Your task to perform on an android device: open a bookmark in the chrome app Image 0: 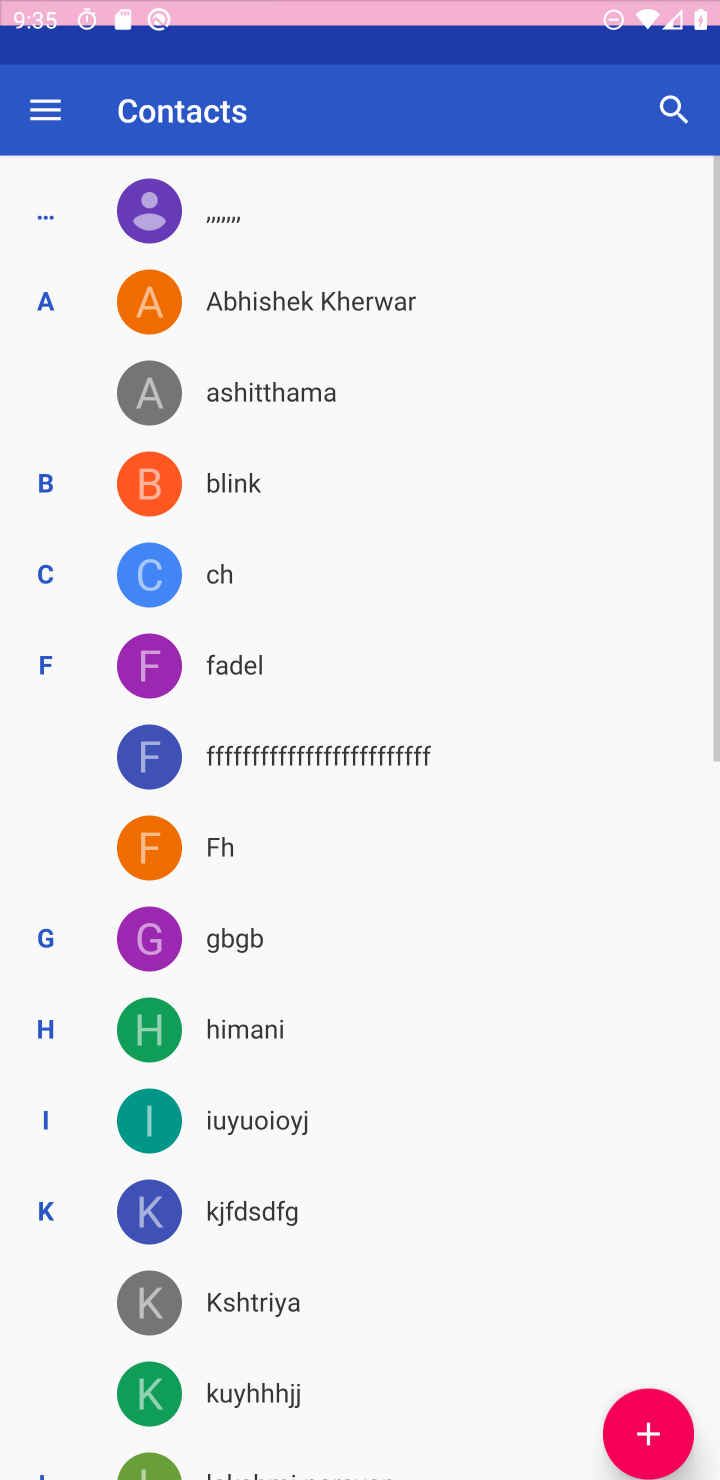
Step 0: press home button
Your task to perform on an android device: open a bookmark in the chrome app Image 1: 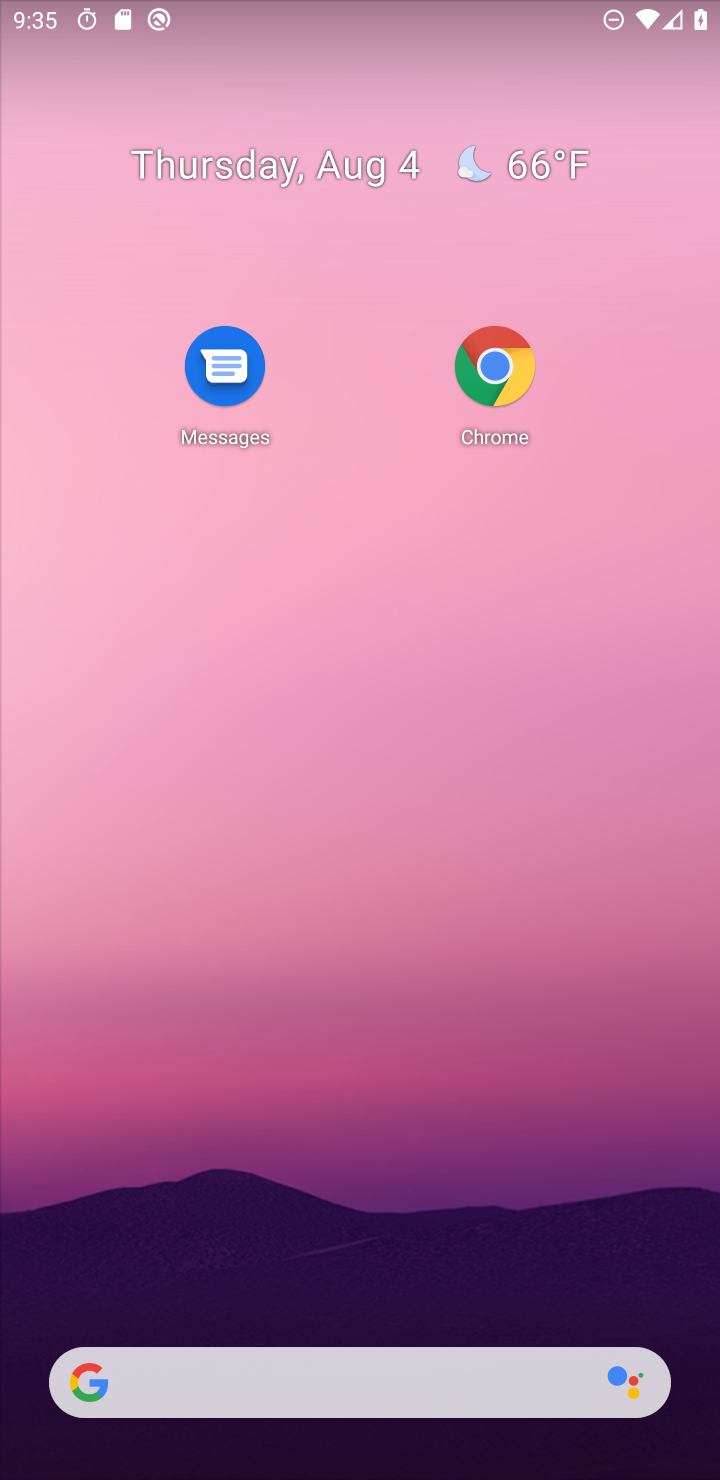
Step 1: drag from (343, 1256) to (459, 232)
Your task to perform on an android device: open a bookmark in the chrome app Image 2: 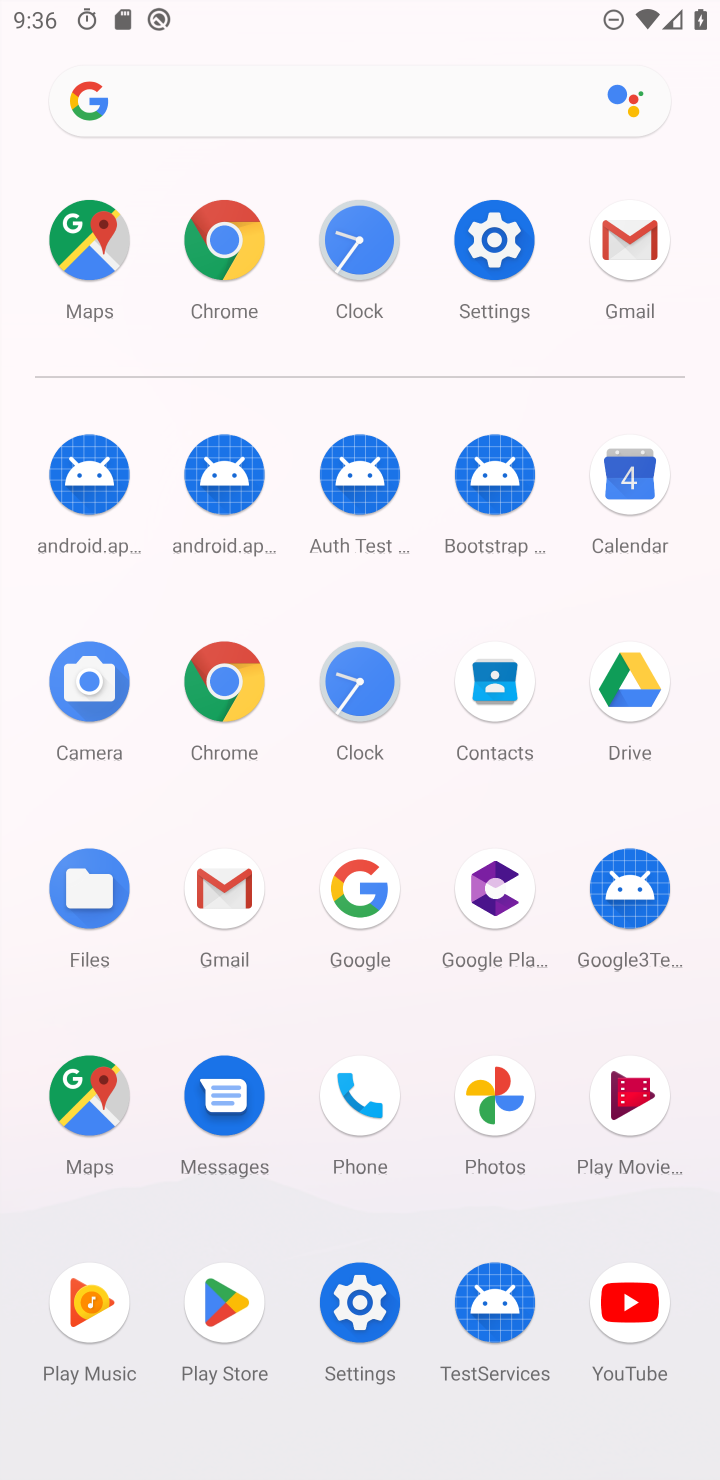
Step 2: click (217, 250)
Your task to perform on an android device: open a bookmark in the chrome app Image 3: 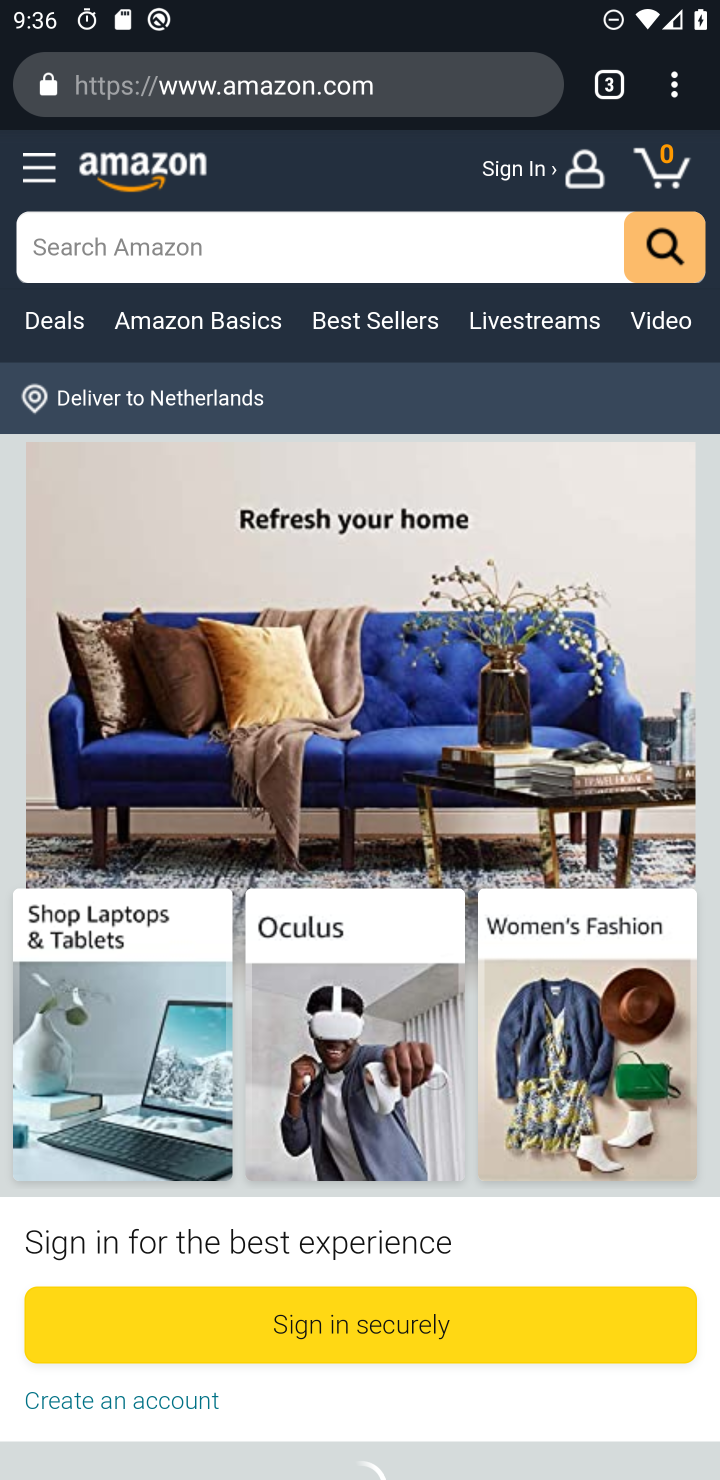
Step 3: click (672, 97)
Your task to perform on an android device: open a bookmark in the chrome app Image 4: 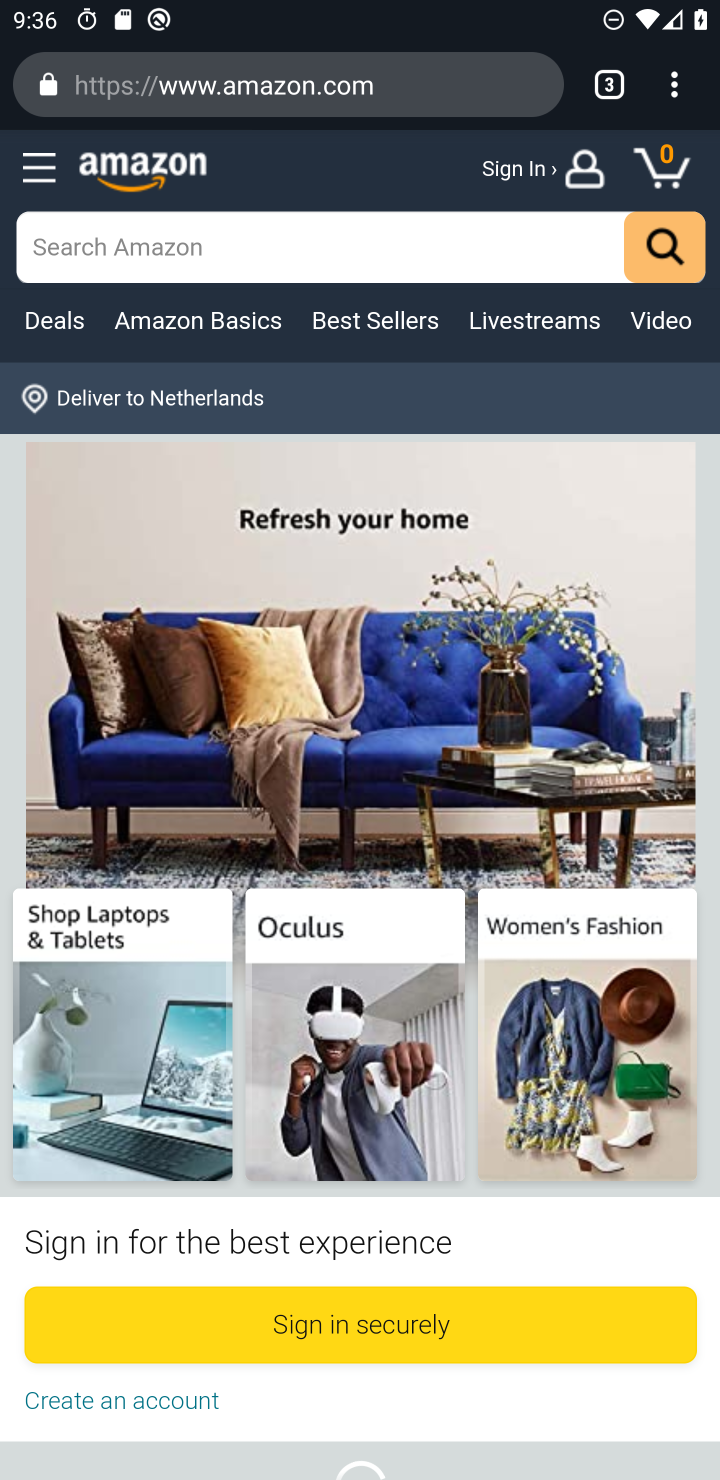
Step 4: click (676, 82)
Your task to perform on an android device: open a bookmark in the chrome app Image 5: 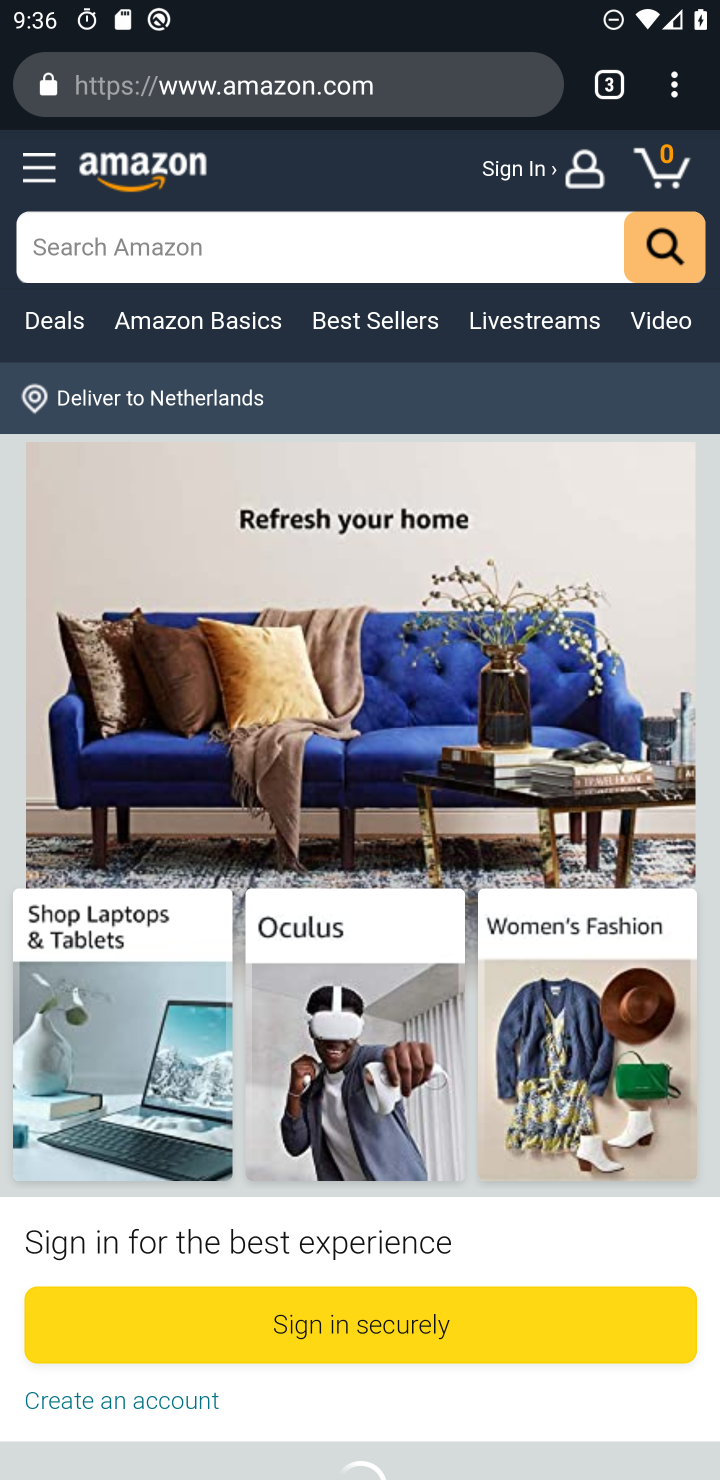
Step 5: click (670, 103)
Your task to perform on an android device: open a bookmark in the chrome app Image 6: 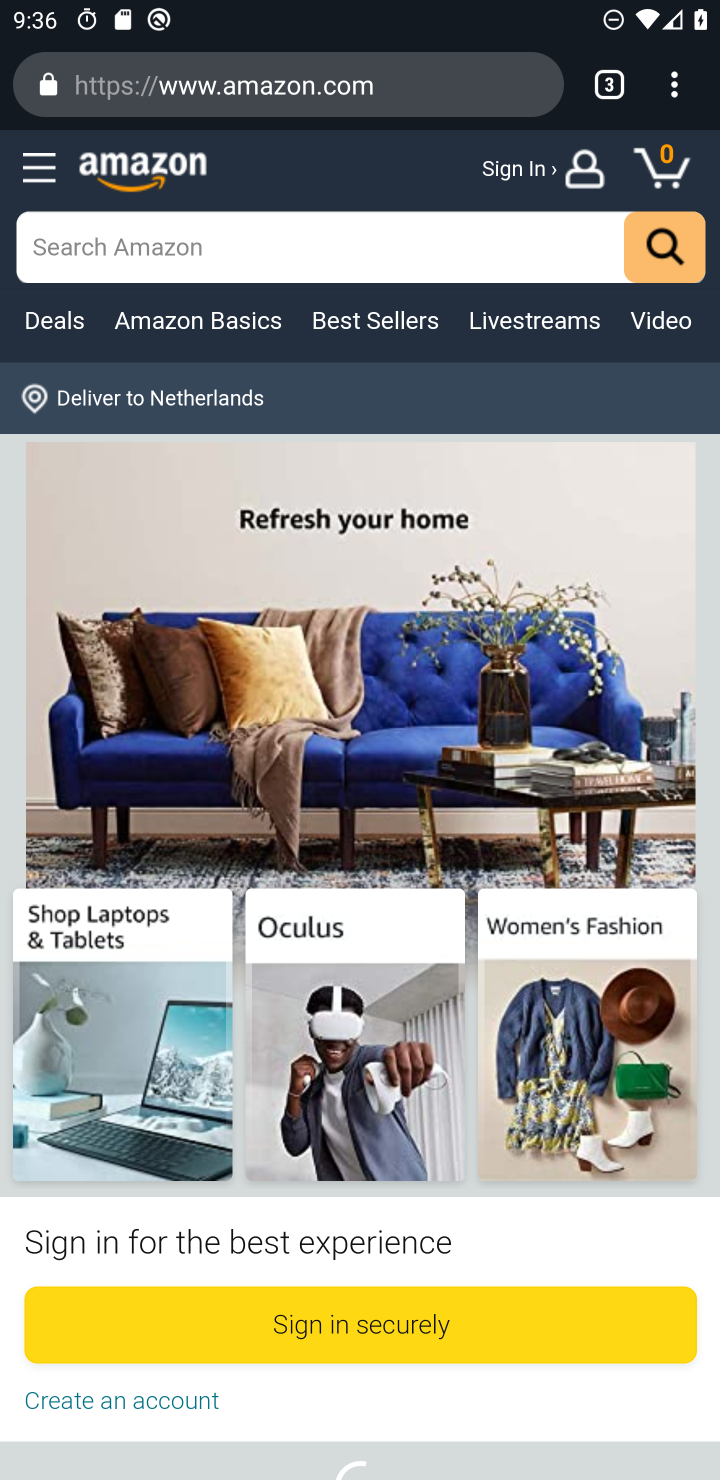
Step 6: click (675, 93)
Your task to perform on an android device: open a bookmark in the chrome app Image 7: 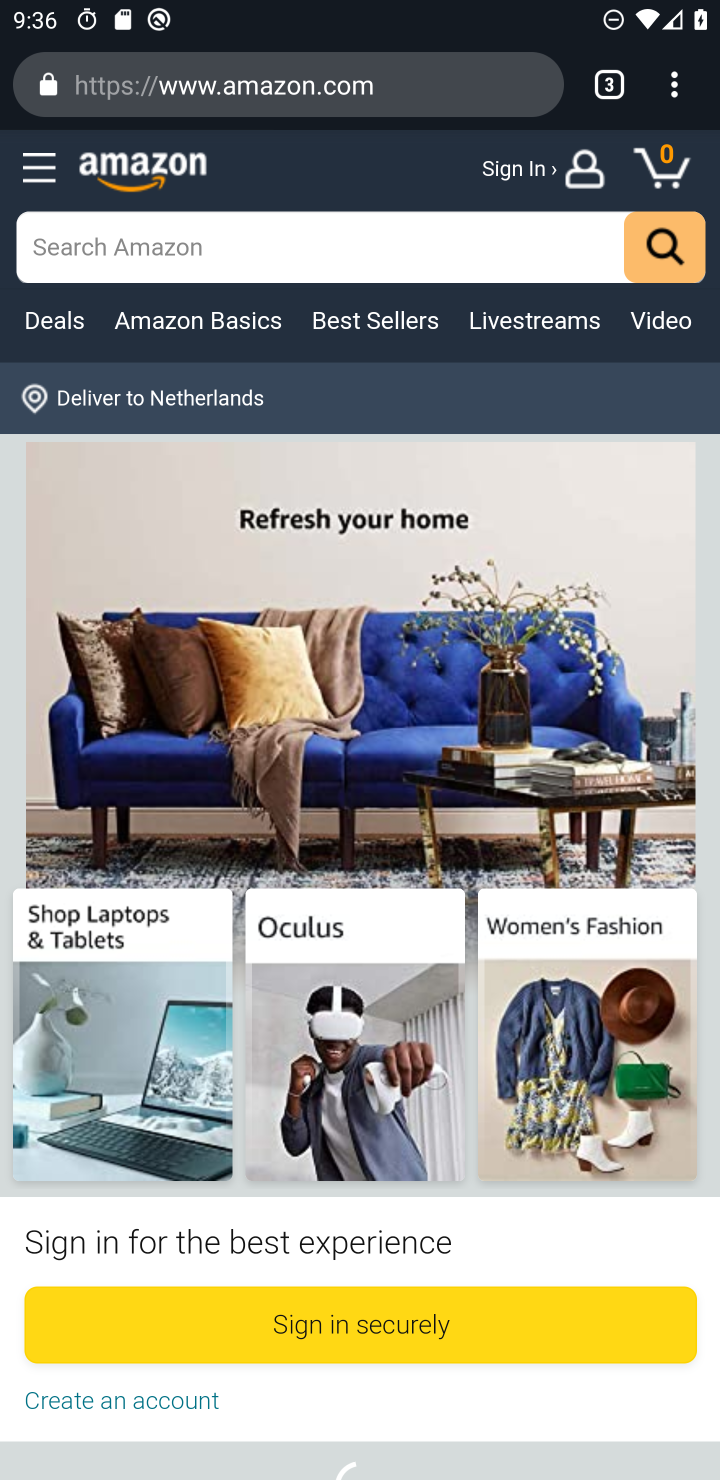
Step 7: click (675, 93)
Your task to perform on an android device: open a bookmark in the chrome app Image 8: 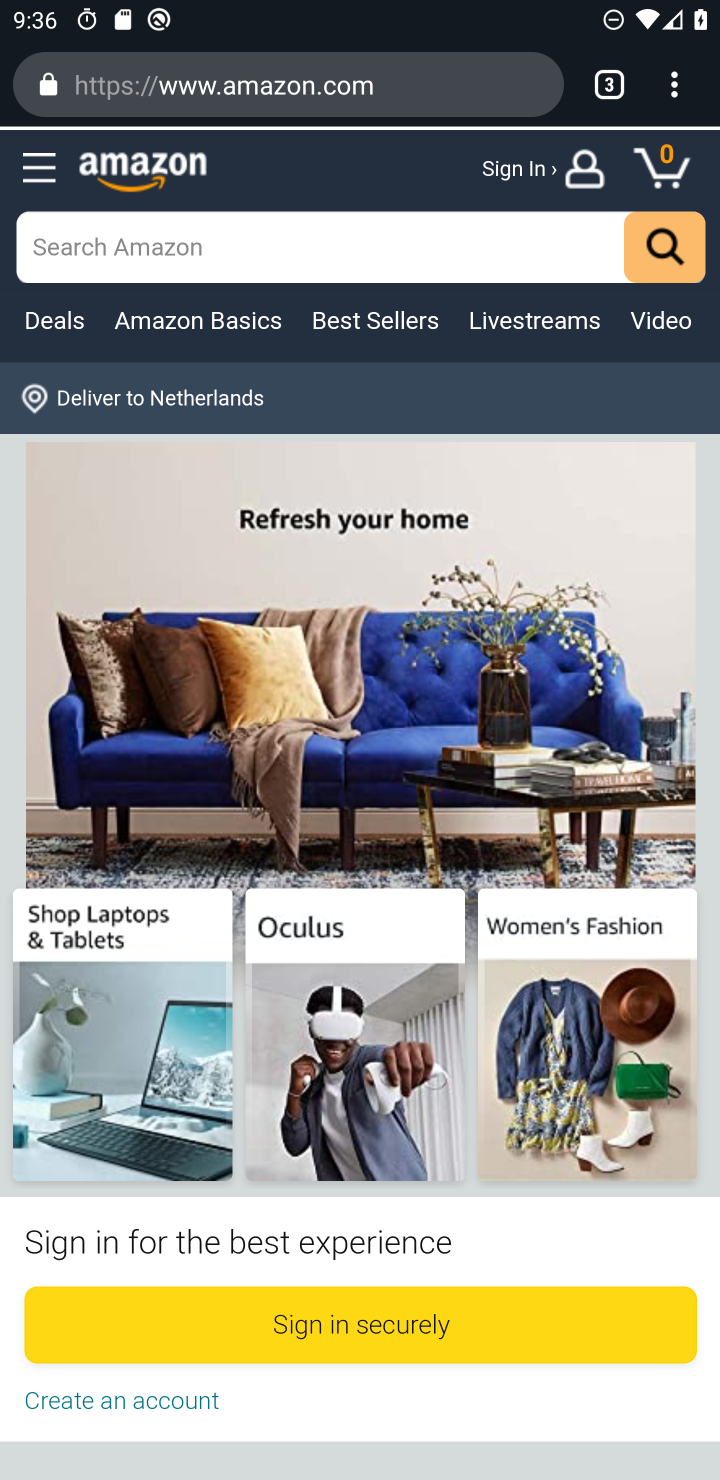
Step 8: click (675, 93)
Your task to perform on an android device: open a bookmark in the chrome app Image 9: 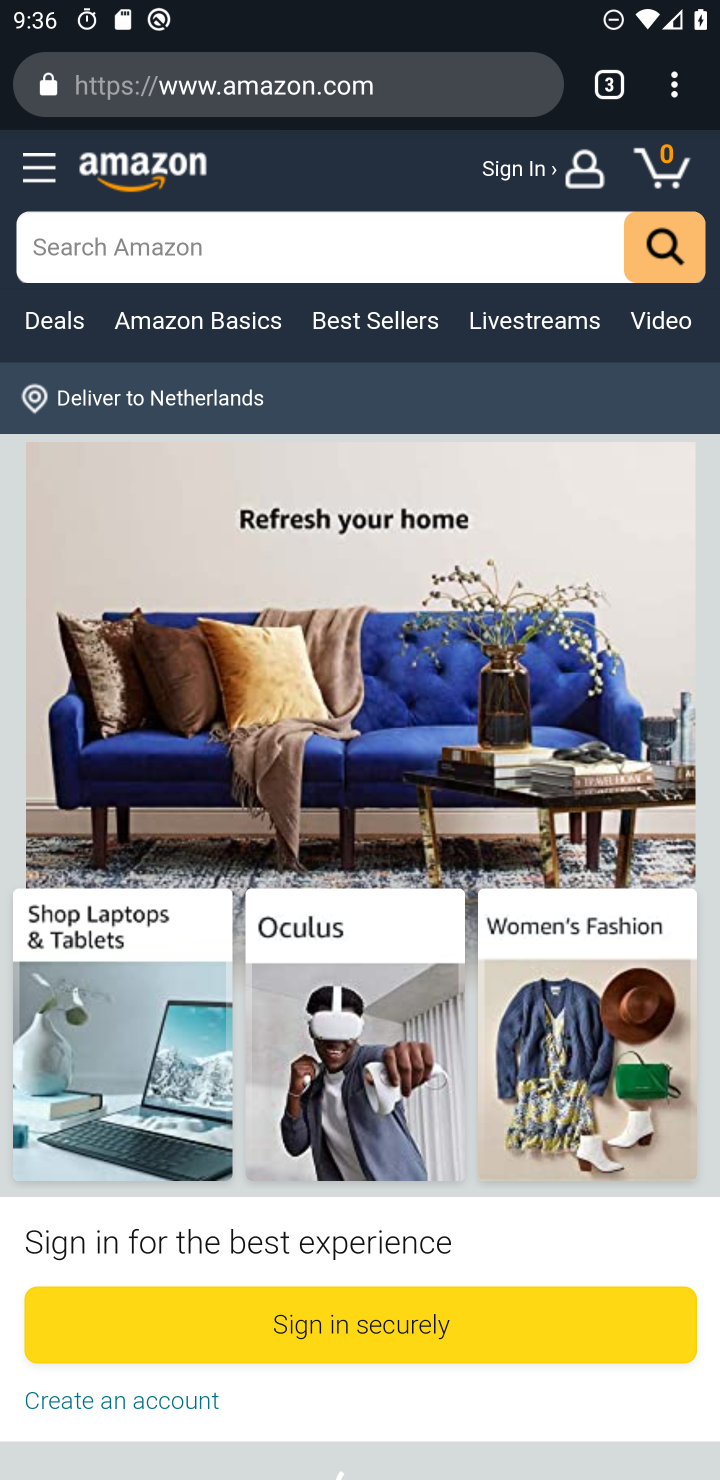
Step 9: click (642, 113)
Your task to perform on an android device: open a bookmark in the chrome app Image 10: 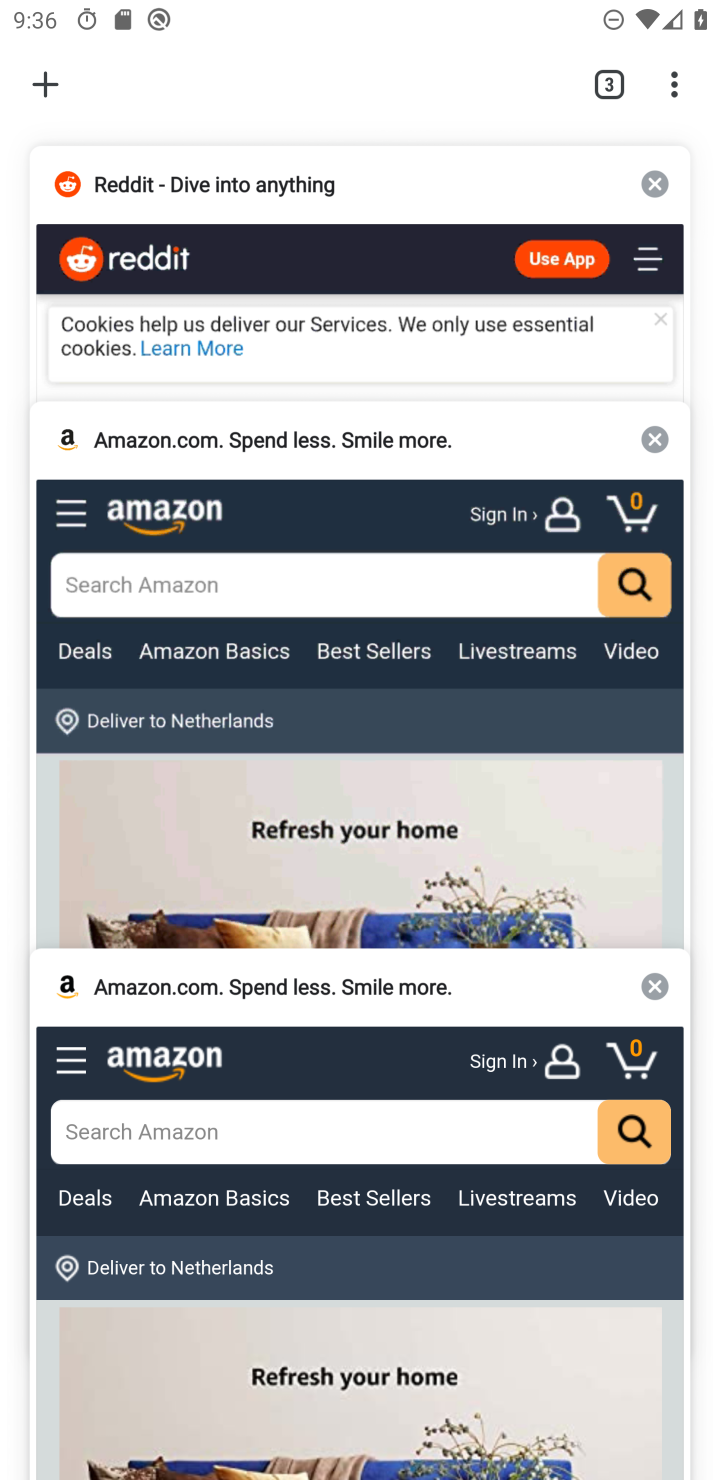
Step 10: click (671, 92)
Your task to perform on an android device: open a bookmark in the chrome app Image 11: 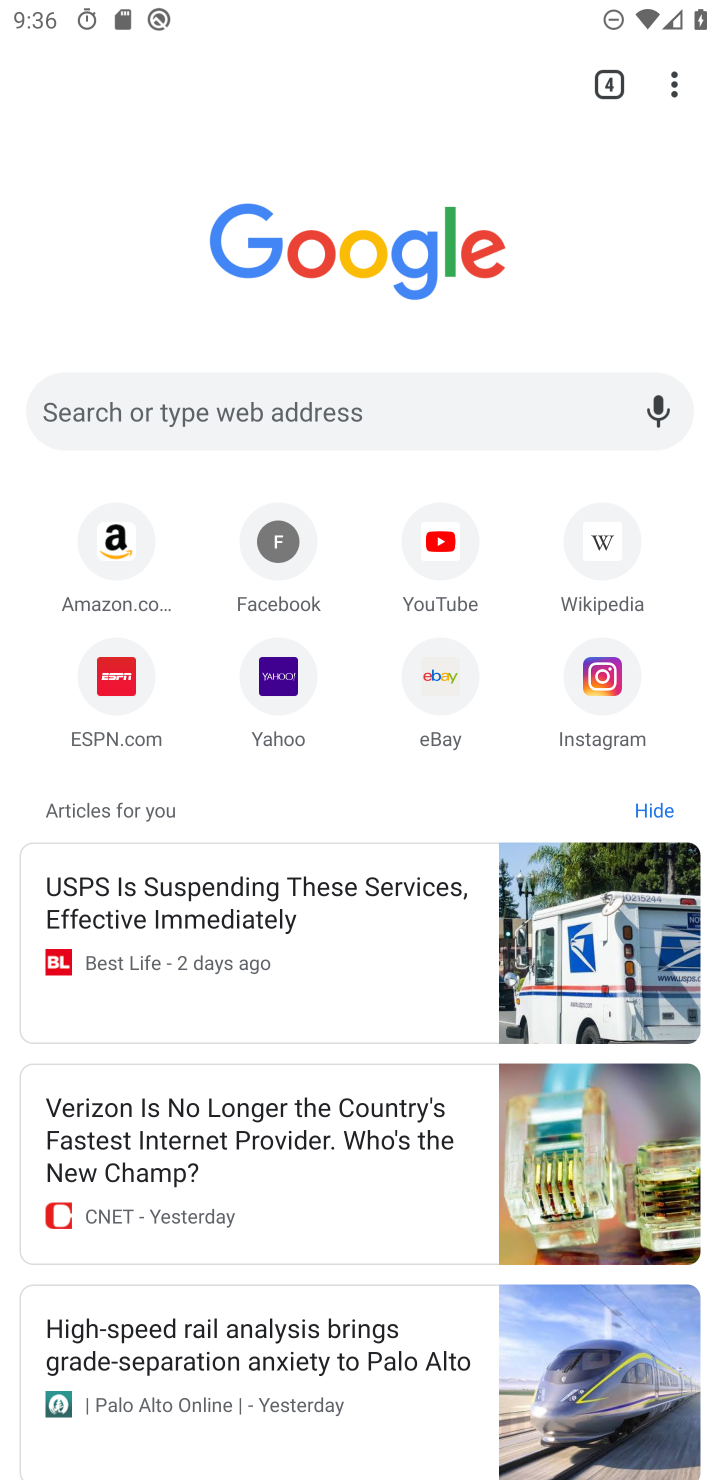
Step 11: click (676, 87)
Your task to perform on an android device: open a bookmark in the chrome app Image 12: 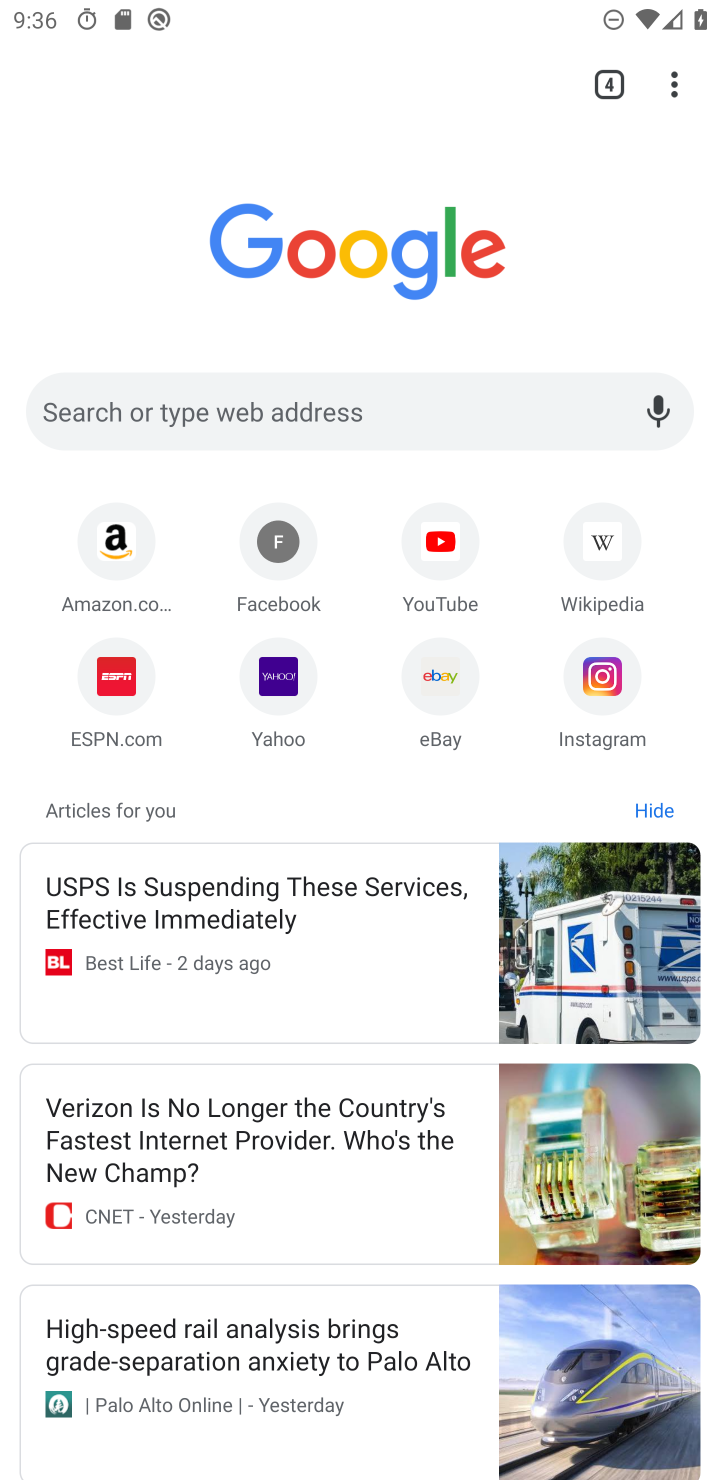
Step 12: click (676, 91)
Your task to perform on an android device: open a bookmark in the chrome app Image 13: 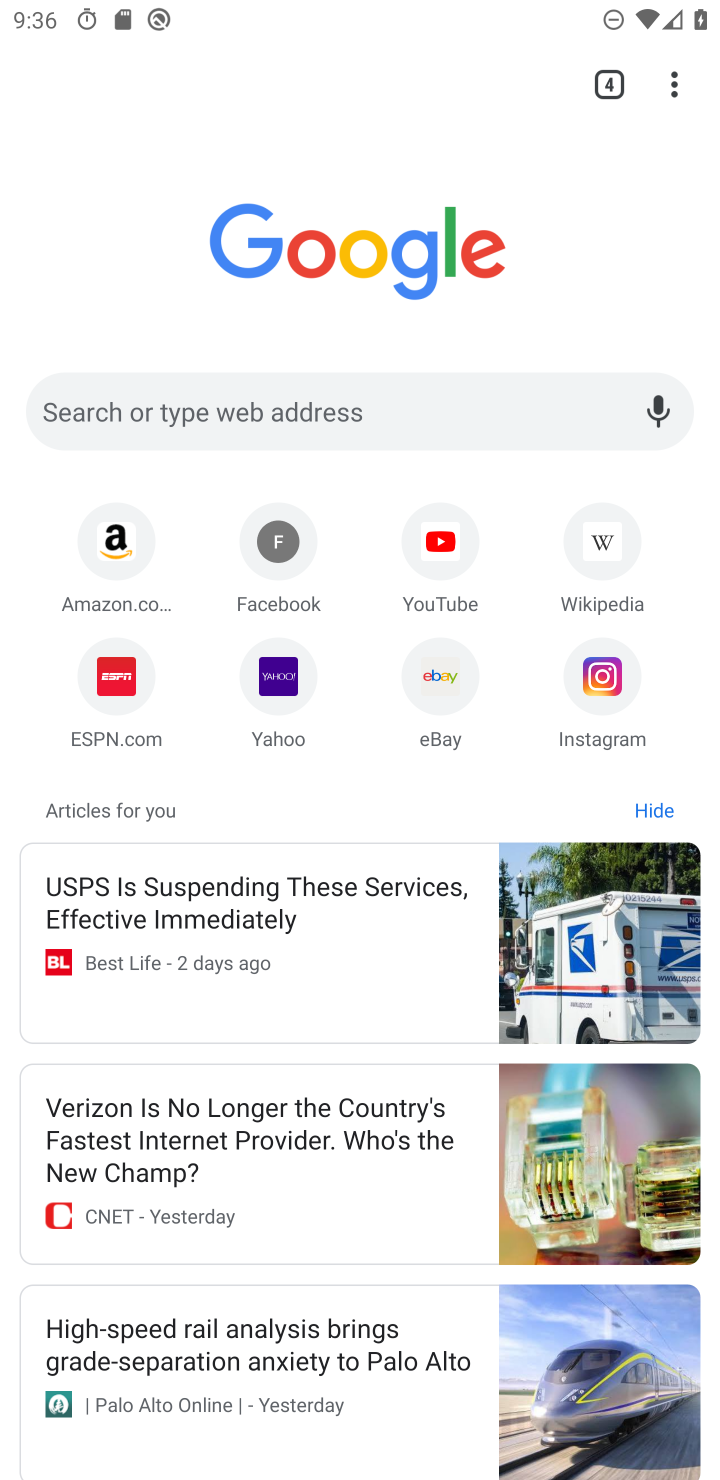
Step 13: click (683, 103)
Your task to perform on an android device: open a bookmark in the chrome app Image 14: 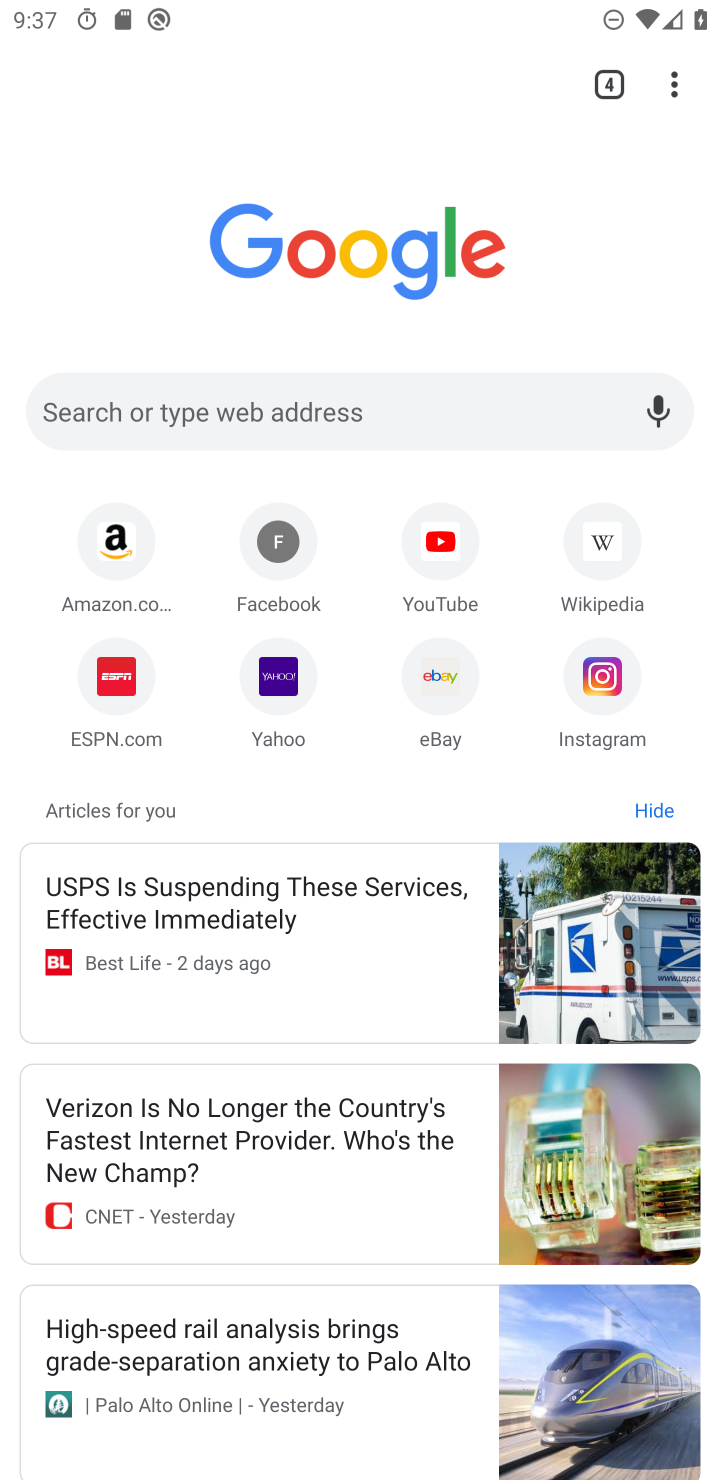
Step 14: click (669, 108)
Your task to perform on an android device: open a bookmark in the chrome app Image 15: 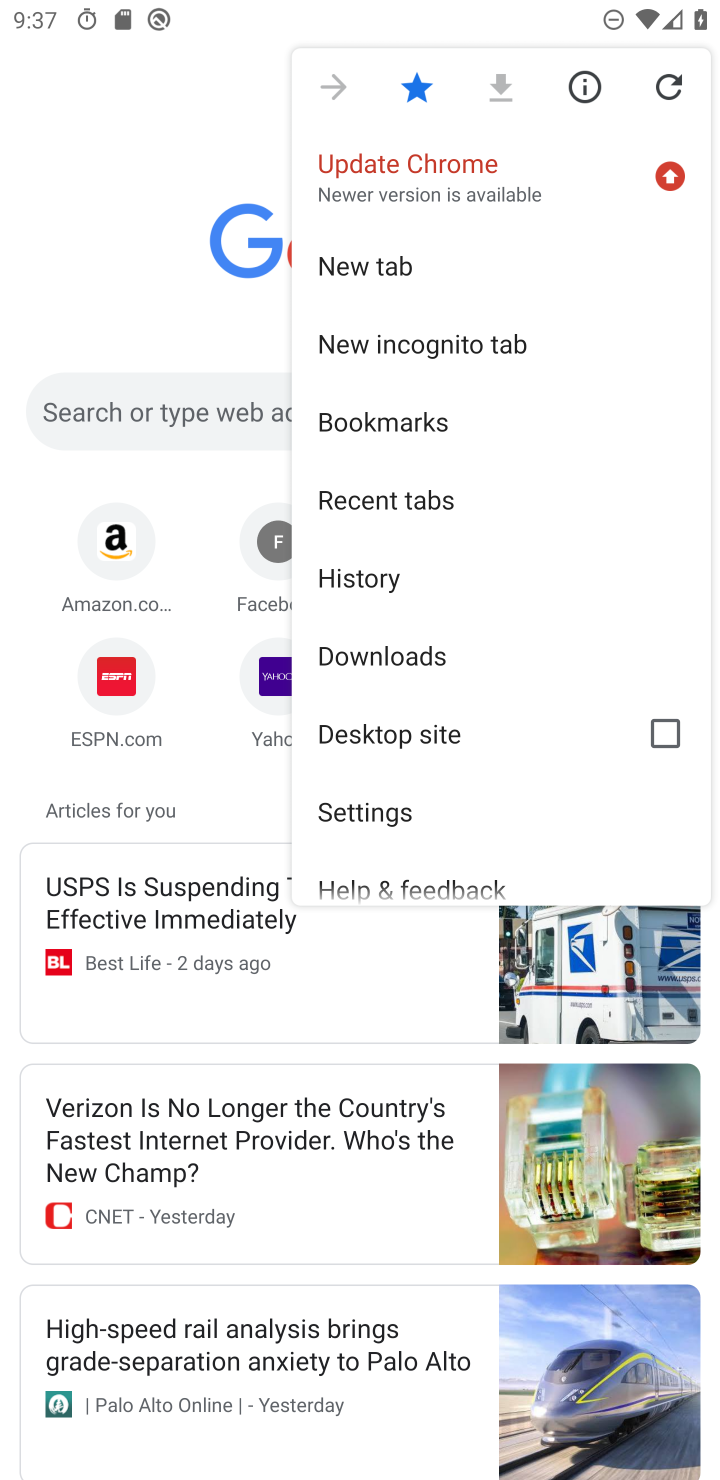
Step 15: click (394, 413)
Your task to perform on an android device: open a bookmark in the chrome app Image 16: 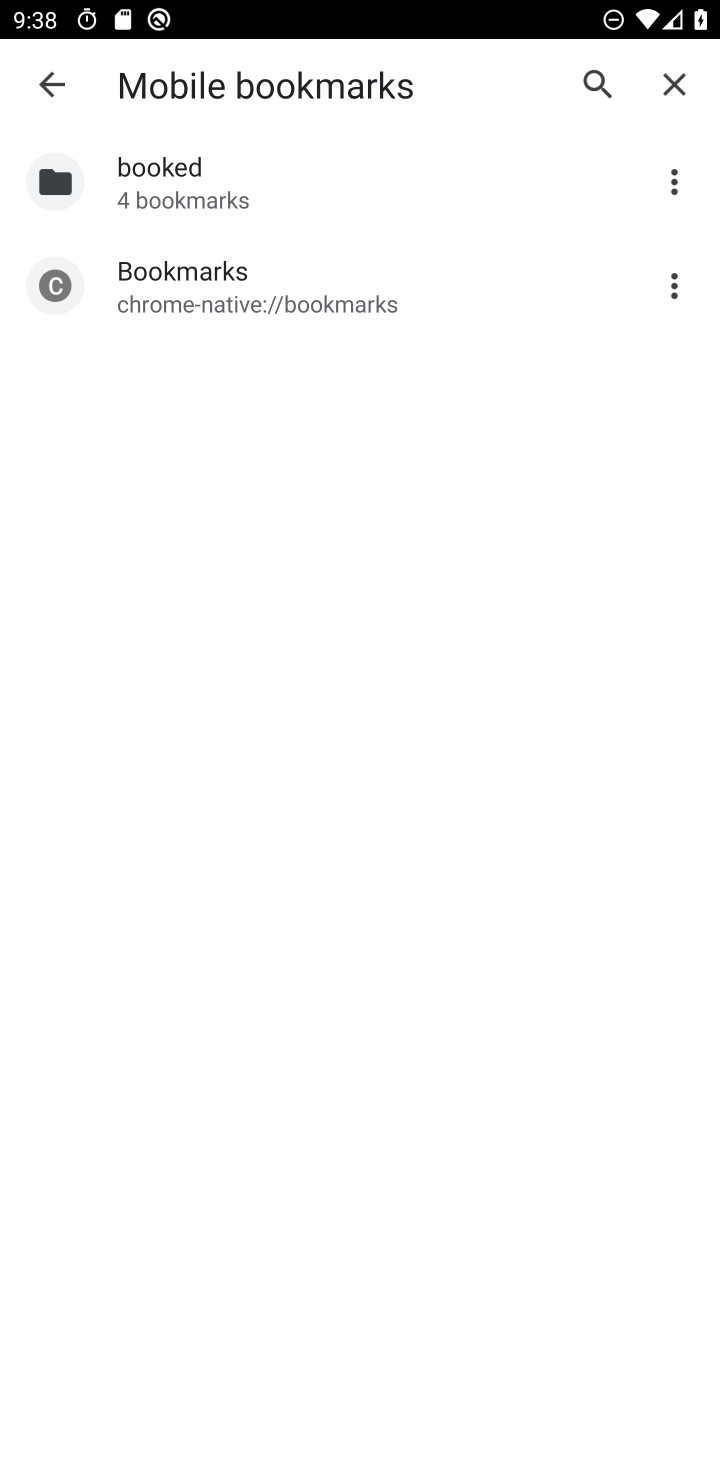
Step 16: task complete